Your task to perform on an android device: turn on location history Image 0: 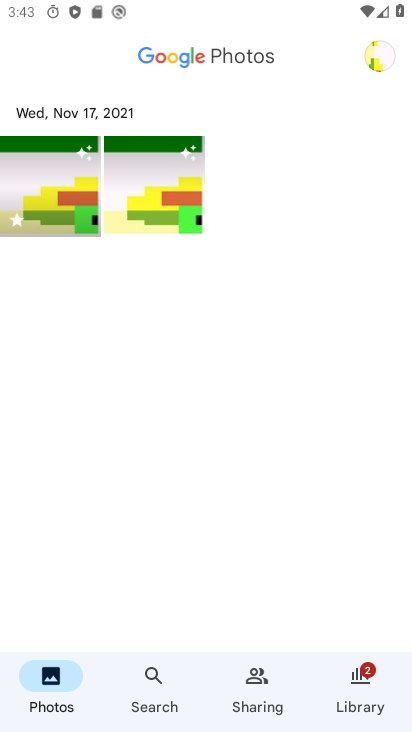
Step 0: press home button
Your task to perform on an android device: turn on location history Image 1: 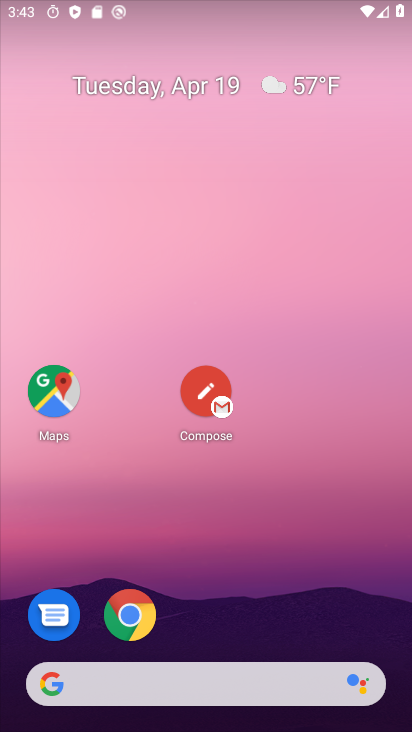
Step 1: drag from (287, 684) to (271, 0)
Your task to perform on an android device: turn on location history Image 2: 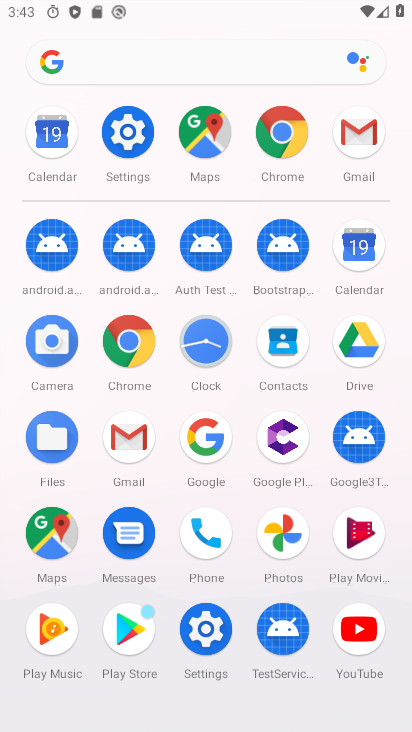
Step 2: click (208, 630)
Your task to perform on an android device: turn on location history Image 3: 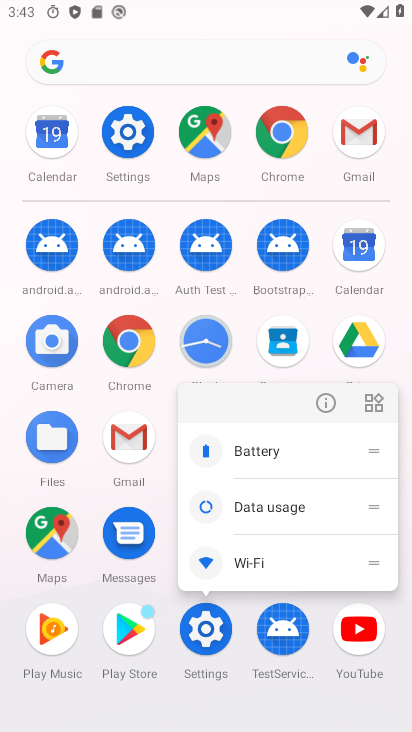
Step 3: click (209, 624)
Your task to perform on an android device: turn on location history Image 4: 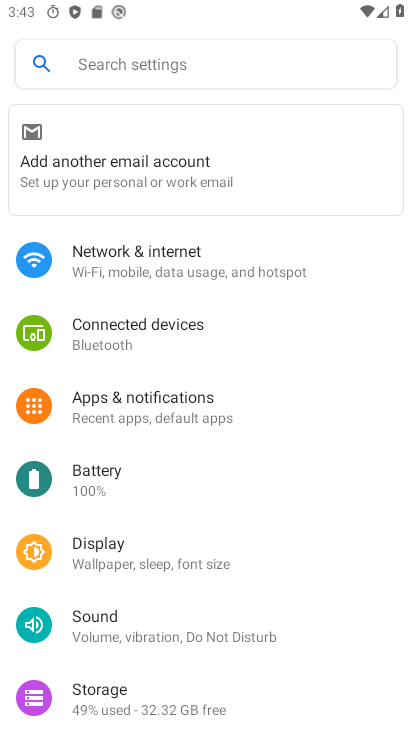
Step 4: drag from (217, 648) to (222, 202)
Your task to perform on an android device: turn on location history Image 5: 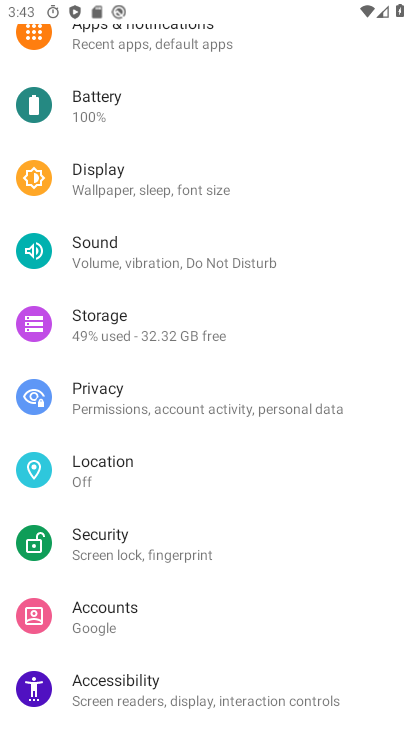
Step 5: click (168, 469)
Your task to perform on an android device: turn on location history Image 6: 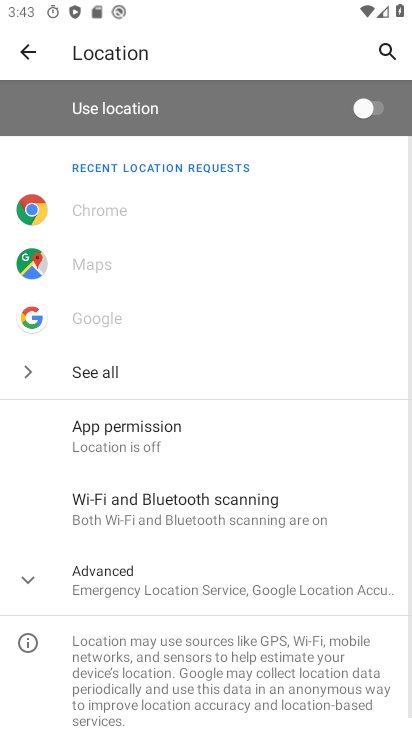
Step 6: drag from (226, 581) to (220, 206)
Your task to perform on an android device: turn on location history Image 7: 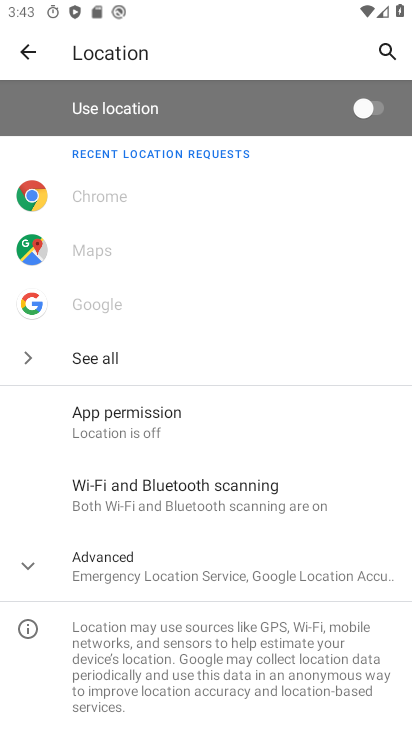
Step 7: click (194, 564)
Your task to perform on an android device: turn on location history Image 8: 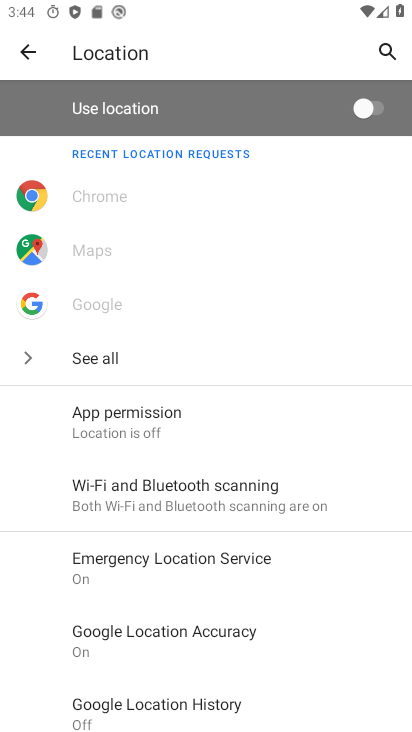
Step 8: drag from (237, 663) to (229, 350)
Your task to perform on an android device: turn on location history Image 9: 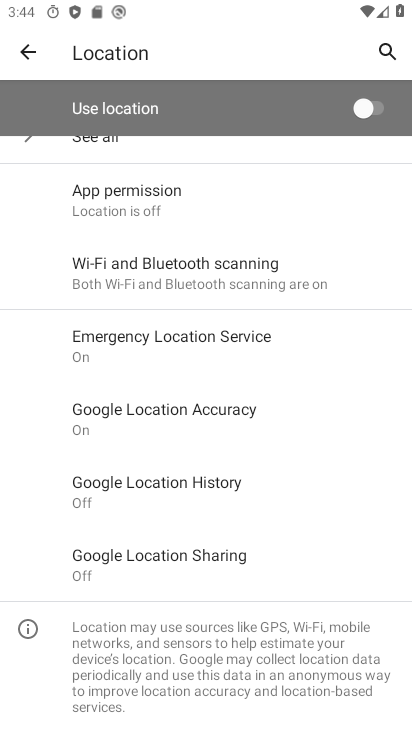
Step 9: click (195, 496)
Your task to perform on an android device: turn on location history Image 10: 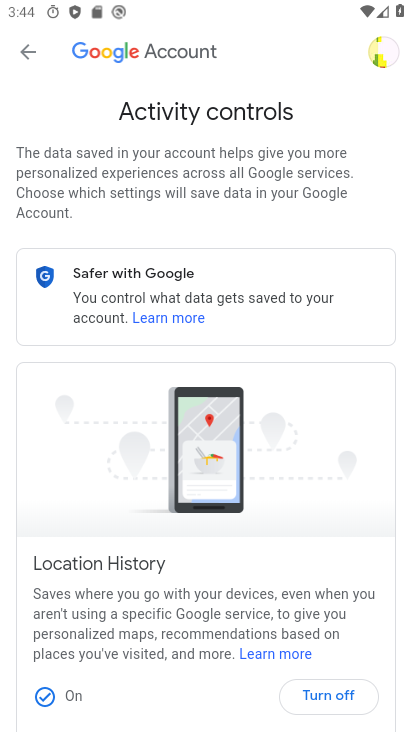
Step 10: task complete